Your task to perform on an android device: Open battery settings Image 0: 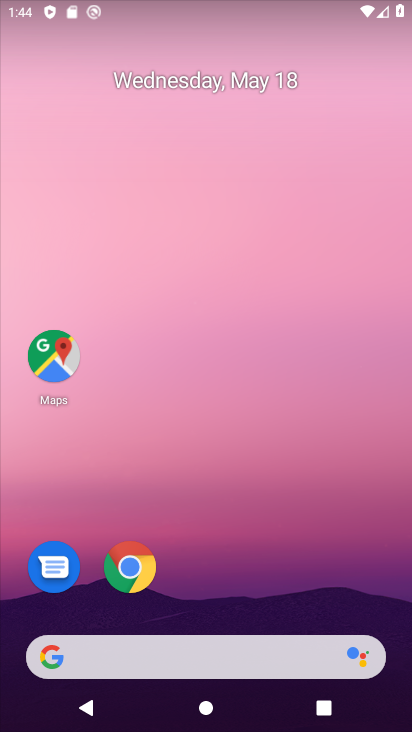
Step 0: drag from (259, 539) to (214, 218)
Your task to perform on an android device: Open battery settings Image 1: 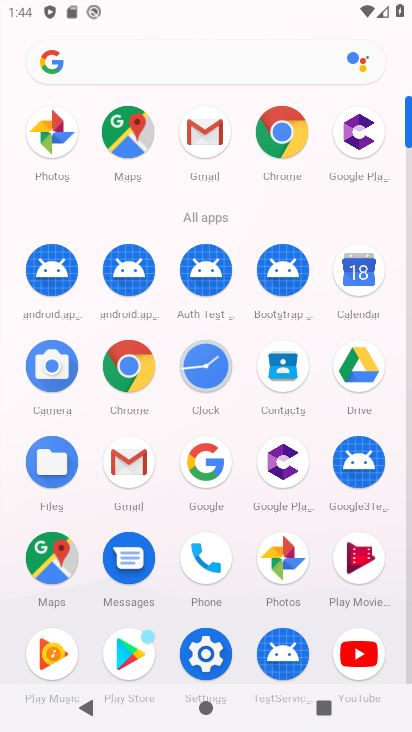
Step 1: click (204, 649)
Your task to perform on an android device: Open battery settings Image 2: 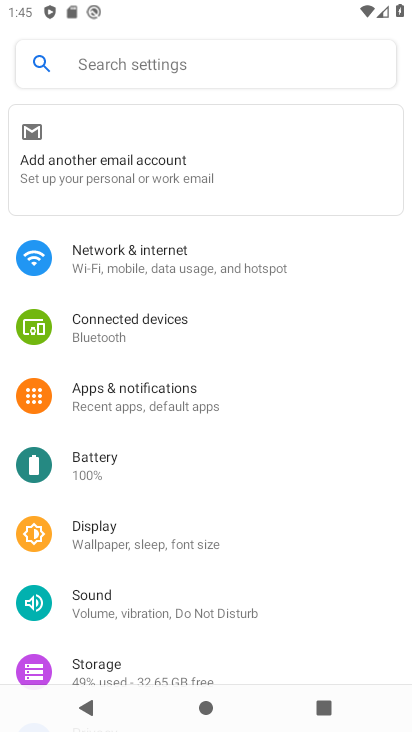
Step 2: drag from (175, 584) to (191, 426)
Your task to perform on an android device: Open battery settings Image 3: 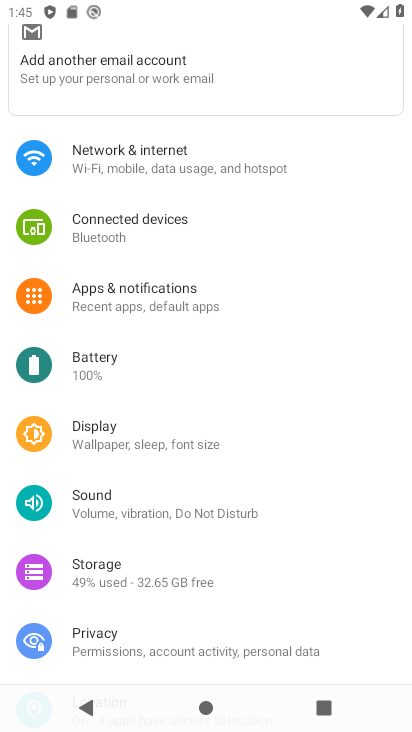
Step 3: click (126, 364)
Your task to perform on an android device: Open battery settings Image 4: 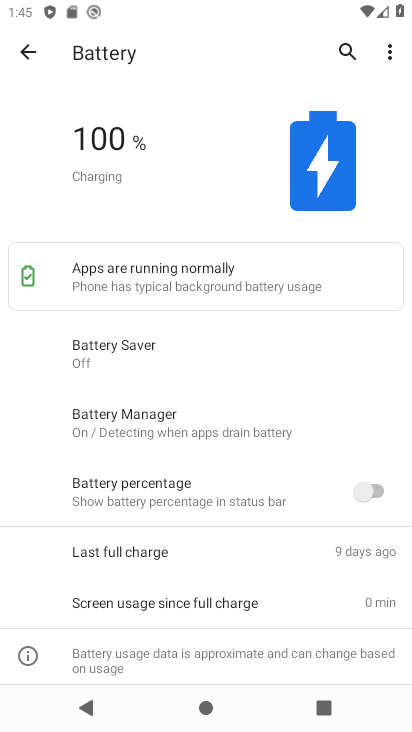
Step 4: task complete